Your task to perform on an android device: Open privacy settings Image 0: 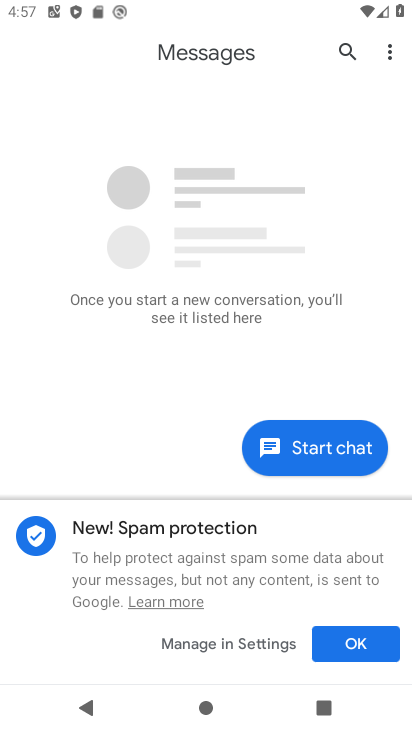
Step 0: press home button
Your task to perform on an android device: Open privacy settings Image 1: 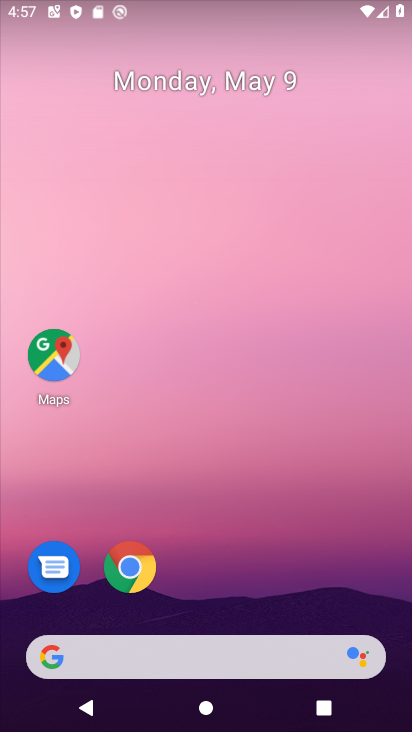
Step 1: drag from (216, 602) to (242, 18)
Your task to perform on an android device: Open privacy settings Image 2: 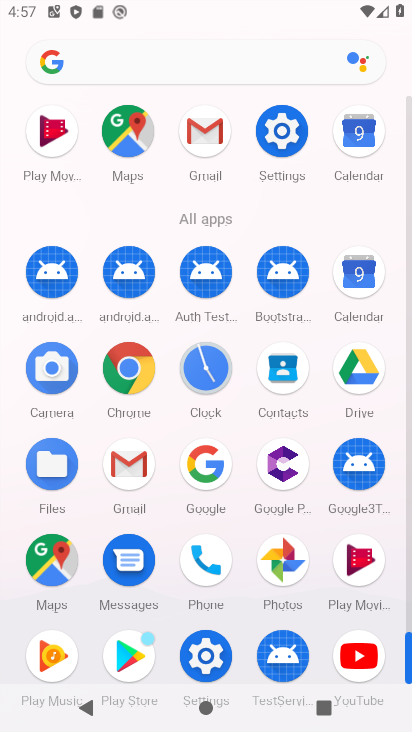
Step 2: click (281, 175)
Your task to perform on an android device: Open privacy settings Image 3: 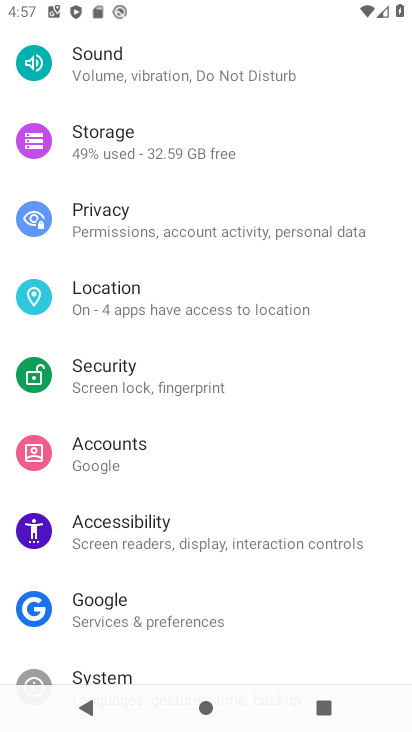
Step 3: click (105, 230)
Your task to perform on an android device: Open privacy settings Image 4: 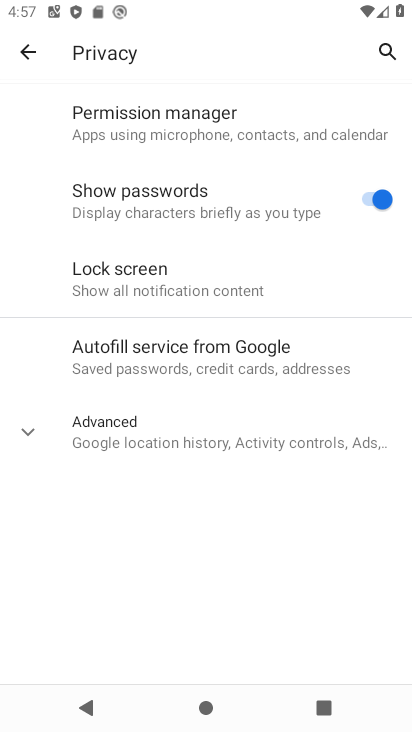
Step 4: task complete